Your task to perform on an android device: toggle show notifications on the lock screen Image 0: 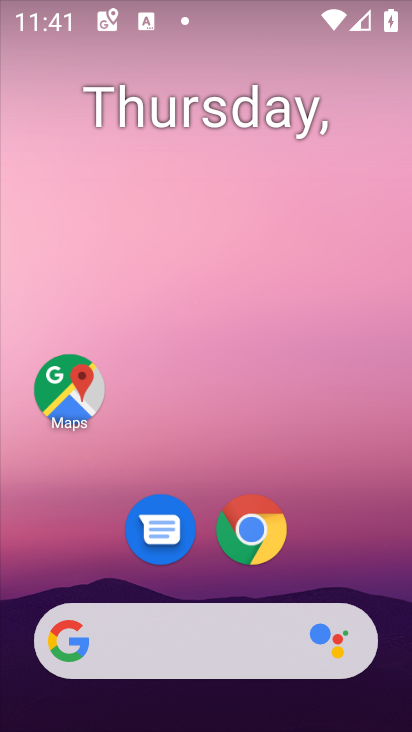
Step 0: drag from (210, 614) to (301, 5)
Your task to perform on an android device: toggle show notifications on the lock screen Image 1: 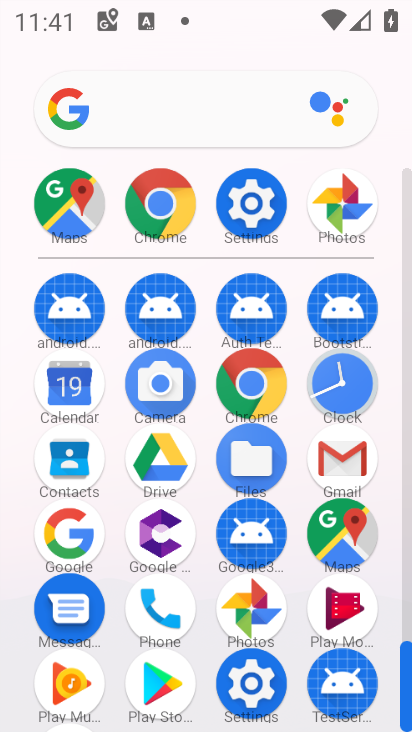
Step 1: click (256, 220)
Your task to perform on an android device: toggle show notifications on the lock screen Image 2: 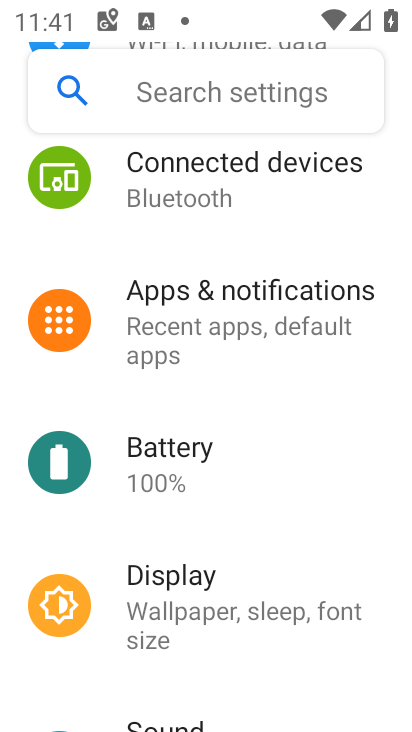
Step 2: drag from (279, 299) to (233, 653)
Your task to perform on an android device: toggle show notifications on the lock screen Image 3: 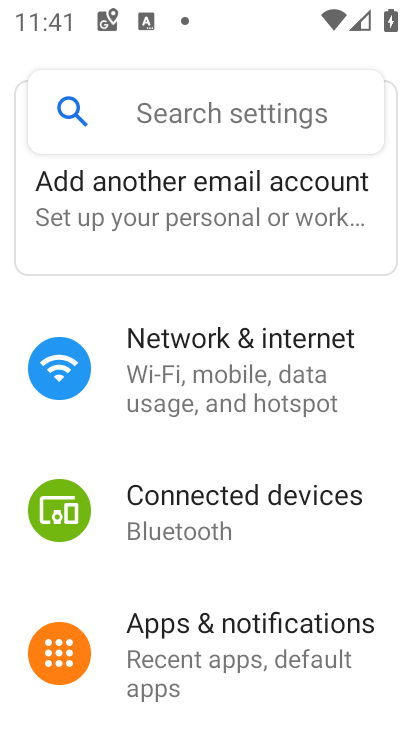
Step 3: drag from (229, 419) to (229, 373)
Your task to perform on an android device: toggle show notifications on the lock screen Image 4: 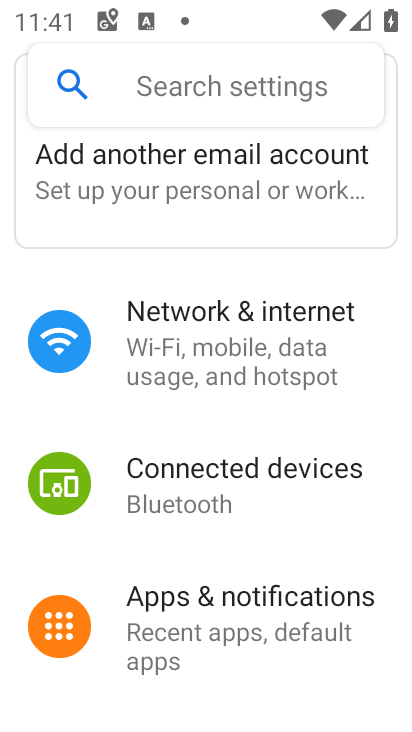
Step 4: click (189, 619)
Your task to perform on an android device: toggle show notifications on the lock screen Image 5: 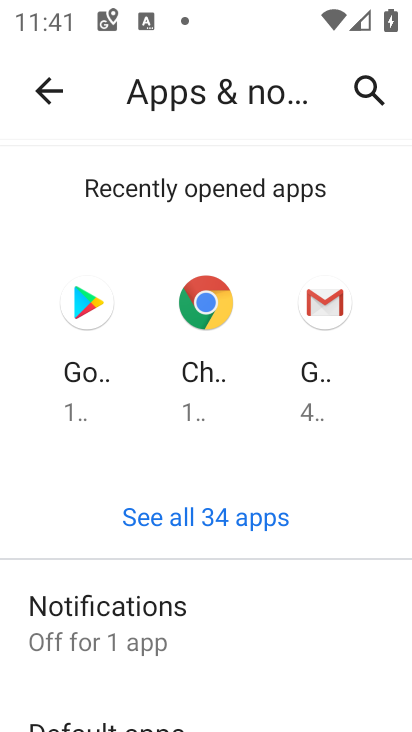
Step 5: click (198, 633)
Your task to perform on an android device: toggle show notifications on the lock screen Image 6: 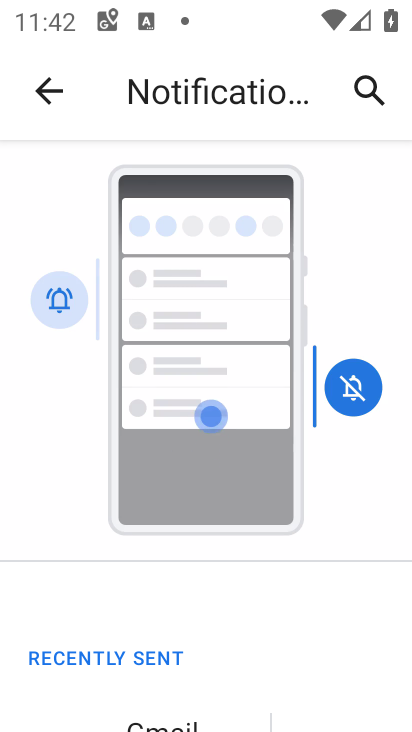
Step 6: drag from (191, 610) to (236, 66)
Your task to perform on an android device: toggle show notifications on the lock screen Image 7: 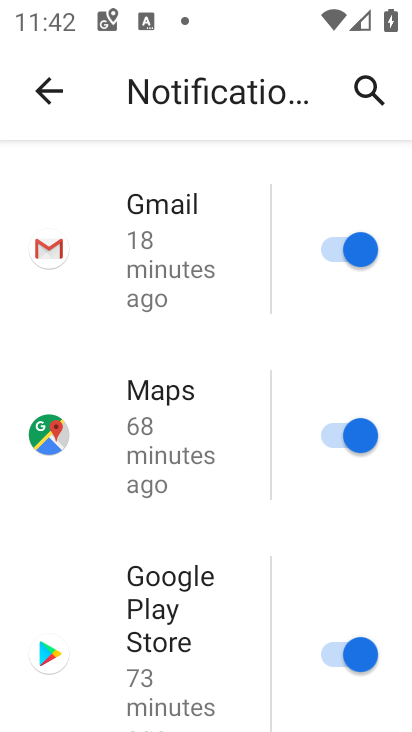
Step 7: drag from (185, 563) to (187, 72)
Your task to perform on an android device: toggle show notifications on the lock screen Image 8: 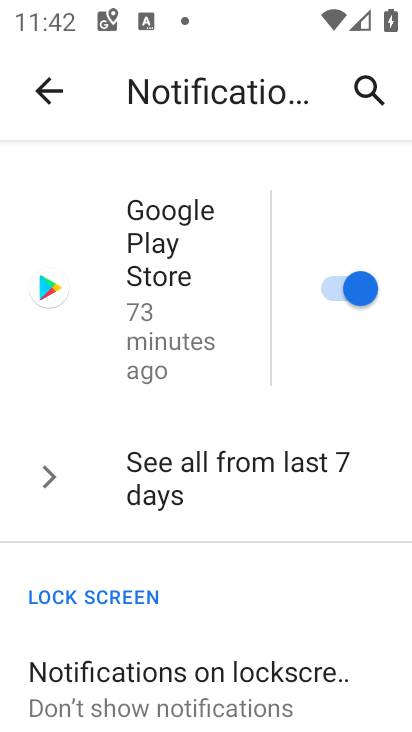
Step 8: drag from (207, 524) to (215, 312)
Your task to perform on an android device: toggle show notifications on the lock screen Image 9: 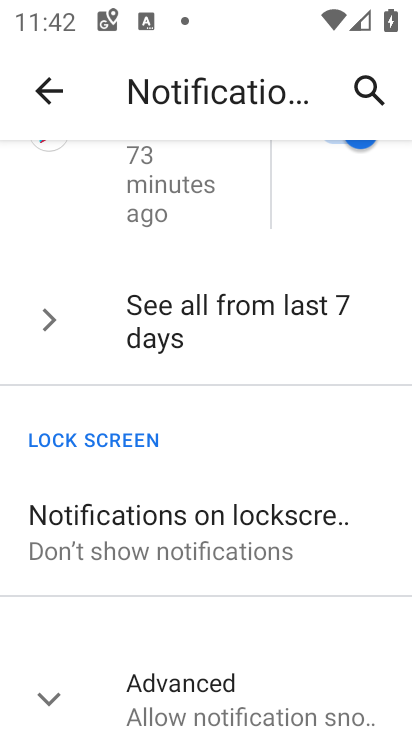
Step 9: click (184, 547)
Your task to perform on an android device: toggle show notifications on the lock screen Image 10: 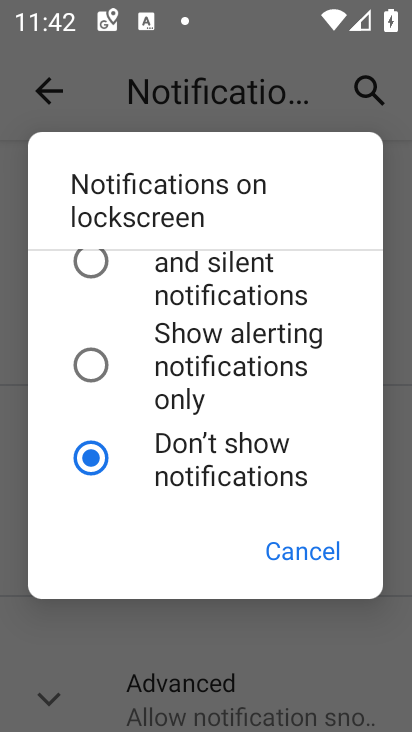
Step 10: drag from (241, 302) to (249, 625)
Your task to perform on an android device: toggle show notifications on the lock screen Image 11: 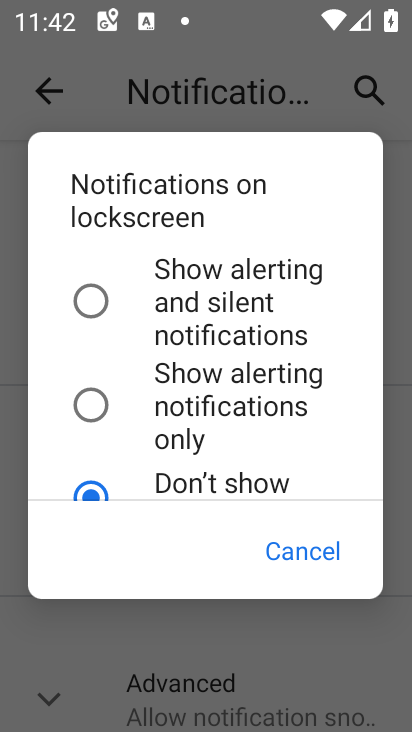
Step 11: click (167, 307)
Your task to perform on an android device: toggle show notifications on the lock screen Image 12: 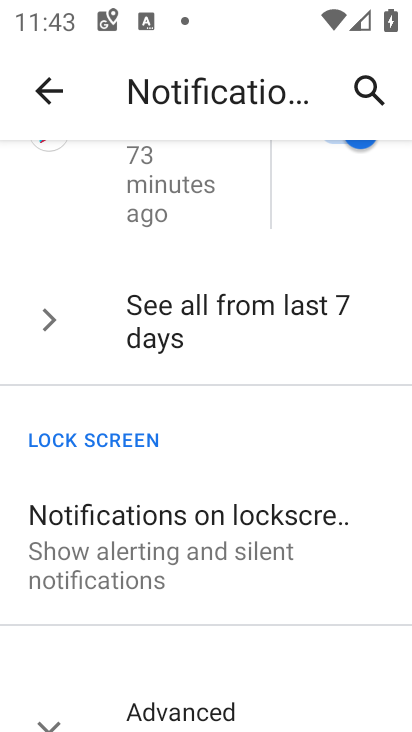
Step 12: drag from (166, 623) to (178, 343)
Your task to perform on an android device: toggle show notifications on the lock screen Image 13: 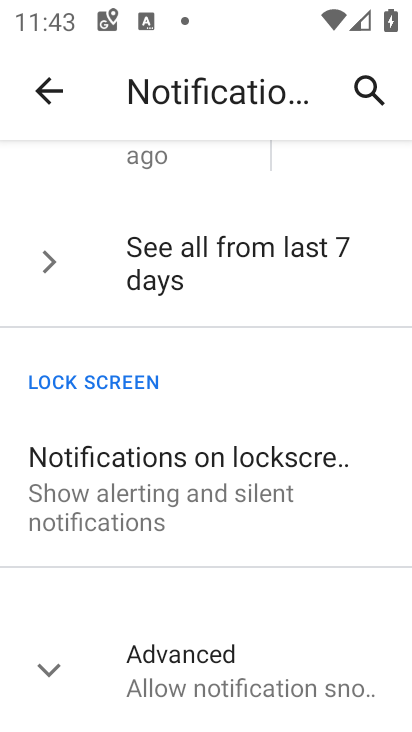
Step 13: click (185, 666)
Your task to perform on an android device: toggle show notifications on the lock screen Image 14: 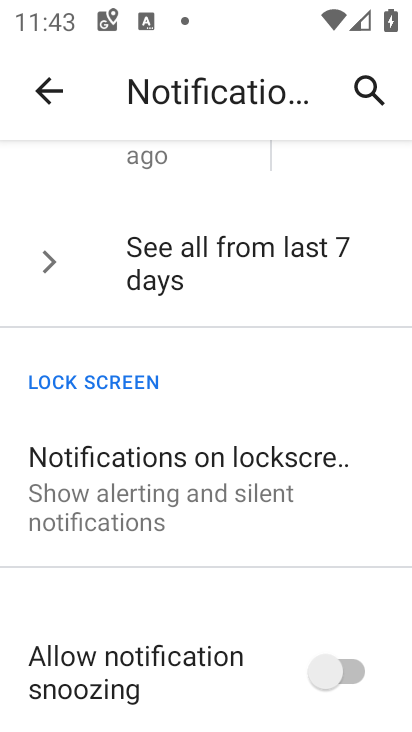
Step 14: drag from (197, 619) to (249, 236)
Your task to perform on an android device: toggle show notifications on the lock screen Image 15: 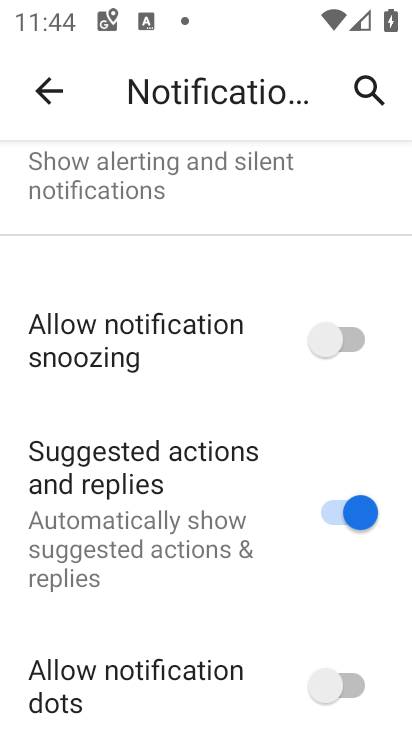
Step 15: click (358, 689)
Your task to perform on an android device: toggle show notifications on the lock screen Image 16: 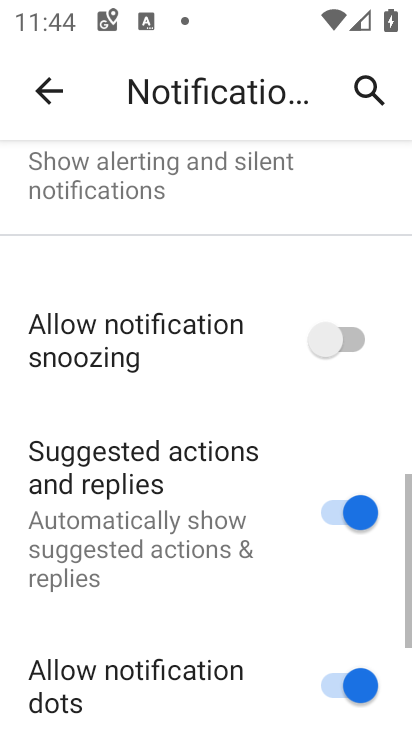
Step 16: task complete